Your task to perform on an android device: Search for Mexican restaurants on Maps Image 0: 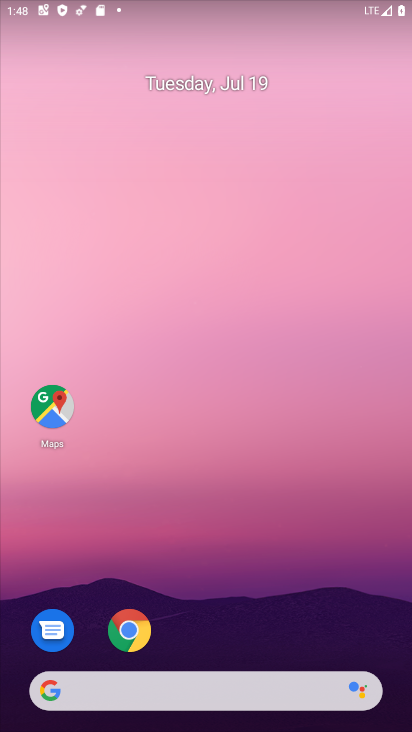
Step 0: press home button
Your task to perform on an android device: Search for Mexican restaurants on Maps Image 1: 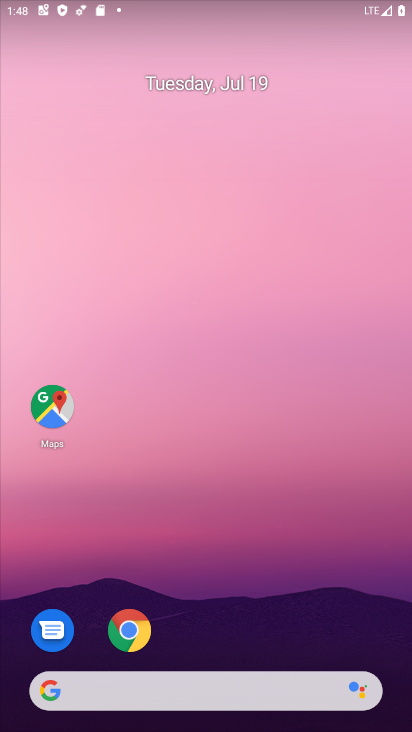
Step 1: click (47, 399)
Your task to perform on an android device: Search for Mexican restaurants on Maps Image 2: 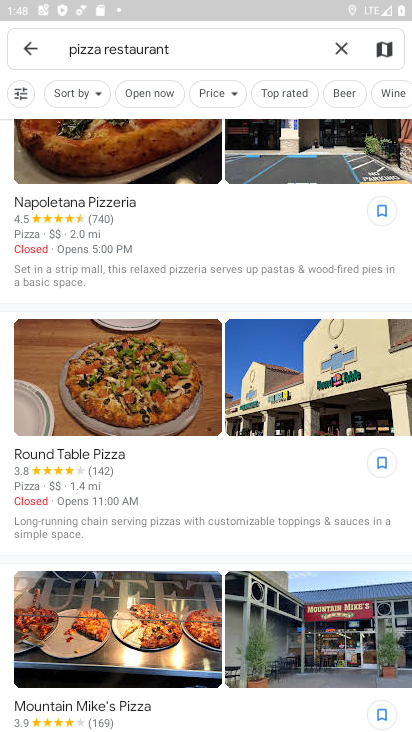
Step 2: click (333, 48)
Your task to perform on an android device: Search for Mexican restaurants on Maps Image 3: 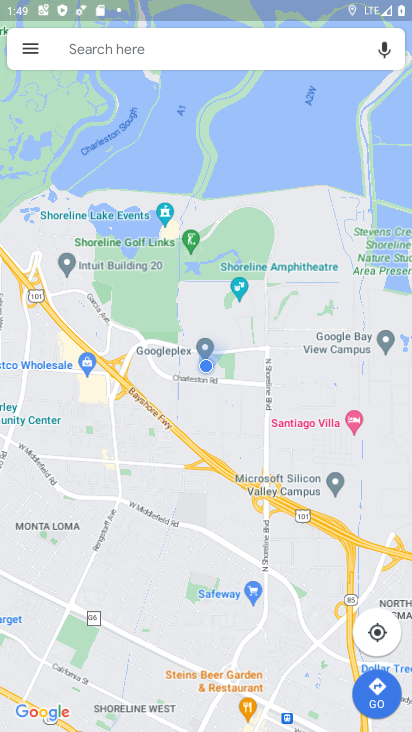
Step 3: click (120, 50)
Your task to perform on an android device: Search for Mexican restaurants on Maps Image 4: 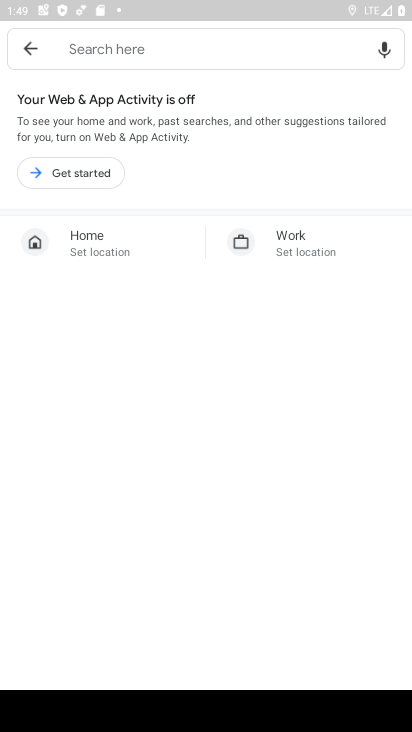
Step 4: type "mexican"
Your task to perform on an android device: Search for Mexican restaurants on Maps Image 5: 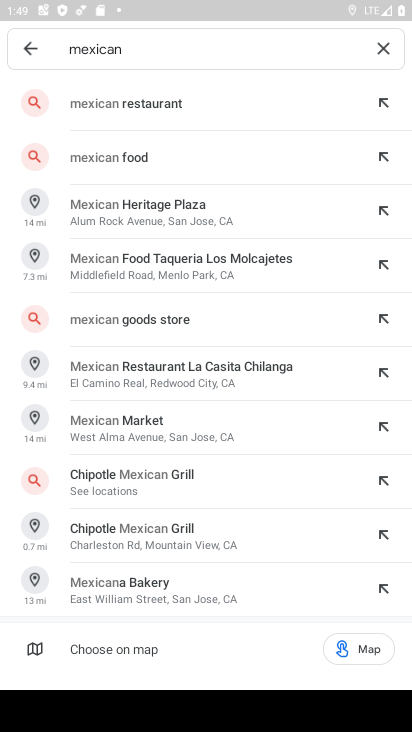
Step 5: click (148, 109)
Your task to perform on an android device: Search for Mexican restaurants on Maps Image 6: 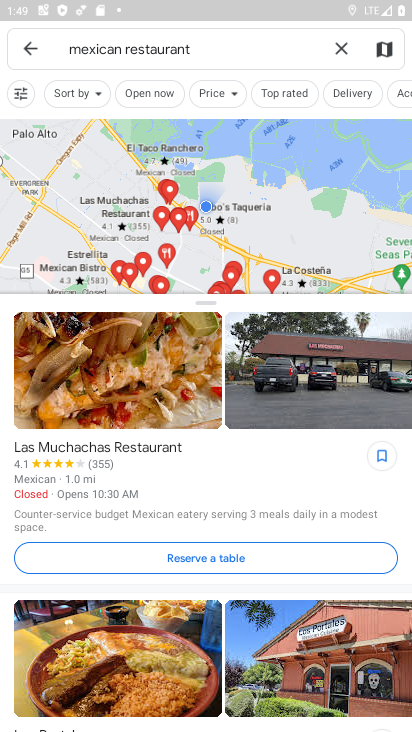
Step 6: task complete